Your task to perform on an android device: move an email to a new category in the gmail app Image 0: 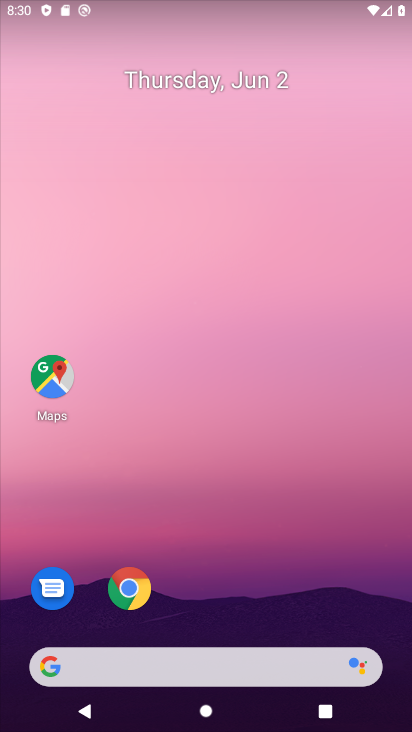
Step 0: drag from (286, 626) to (290, 210)
Your task to perform on an android device: move an email to a new category in the gmail app Image 1: 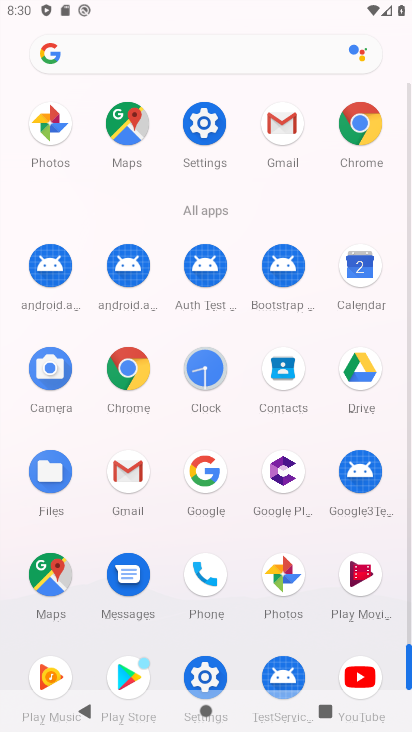
Step 1: click (138, 464)
Your task to perform on an android device: move an email to a new category in the gmail app Image 2: 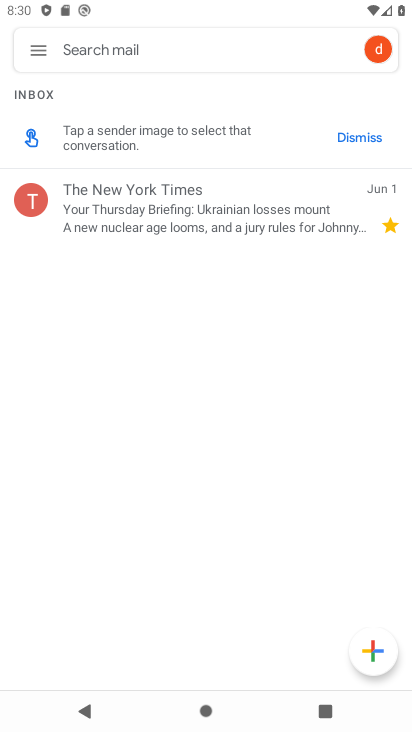
Step 2: click (188, 209)
Your task to perform on an android device: move an email to a new category in the gmail app Image 3: 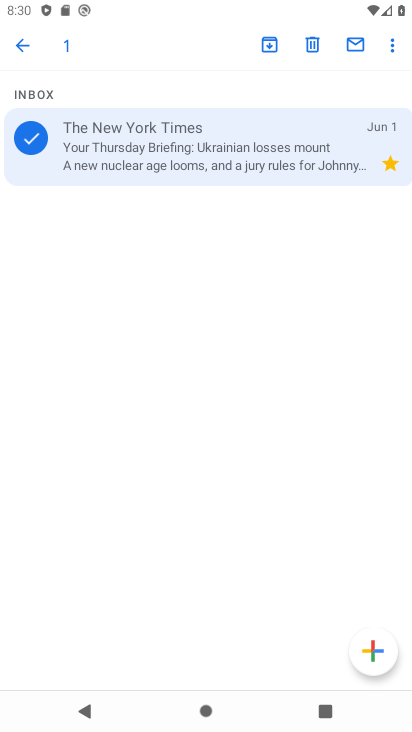
Step 3: click (389, 48)
Your task to perform on an android device: move an email to a new category in the gmail app Image 4: 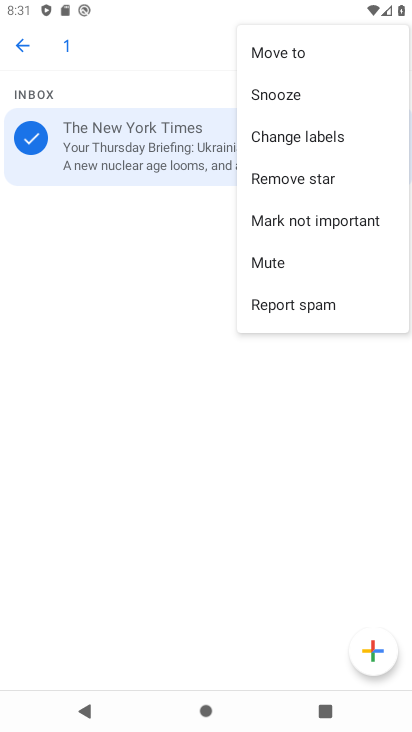
Step 4: click (278, 52)
Your task to perform on an android device: move an email to a new category in the gmail app Image 5: 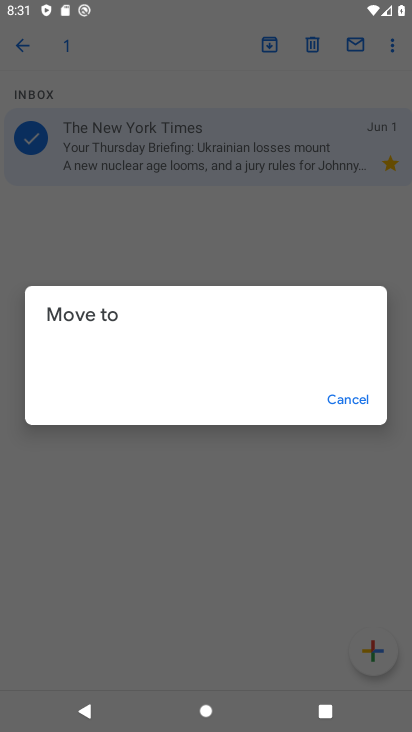
Step 5: click (325, 395)
Your task to perform on an android device: move an email to a new category in the gmail app Image 6: 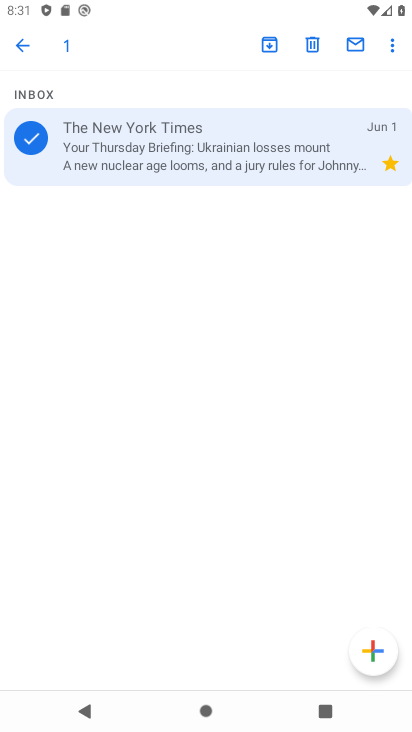
Step 6: click (25, 48)
Your task to perform on an android device: move an email to a new category in the gmail app Image 7: 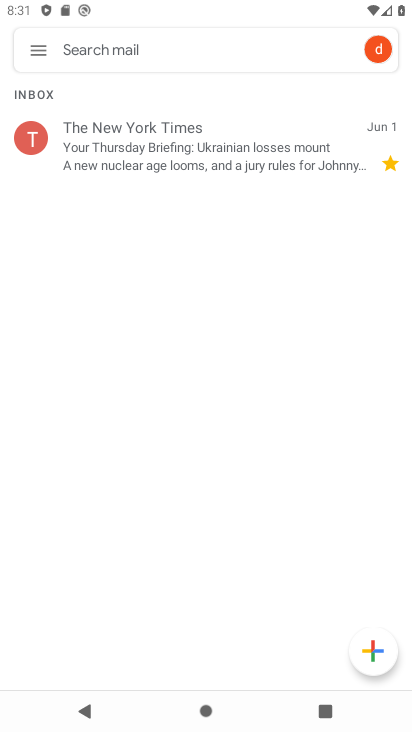
Step 7: click (20, 49)
Your task to perform on an android device: move an email to a new category in the gmail app Image 8: 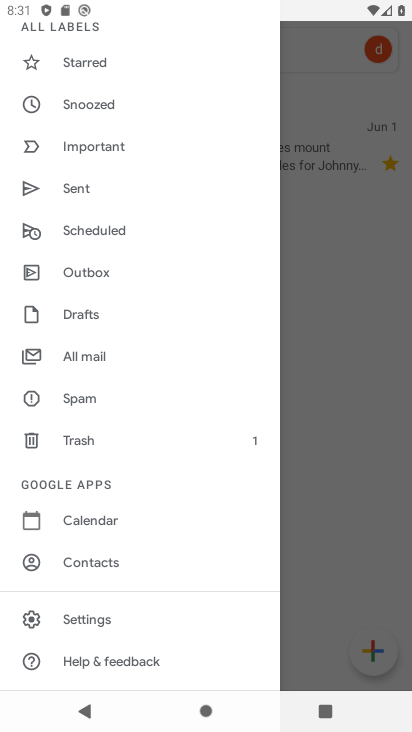
Step 8: click (119, 430)
Your task to perform on an android device: move an email to a new category in the gmail app Image 9: 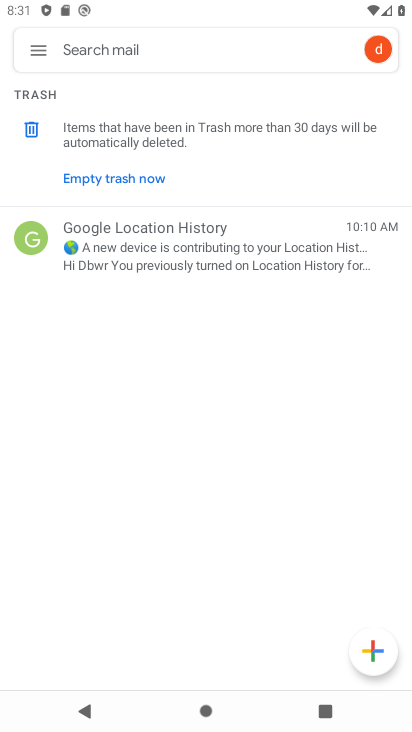
Step 9: click (204, 233)
Your task to perform on an android device: move an email to a new category in the gmail app Image 10: 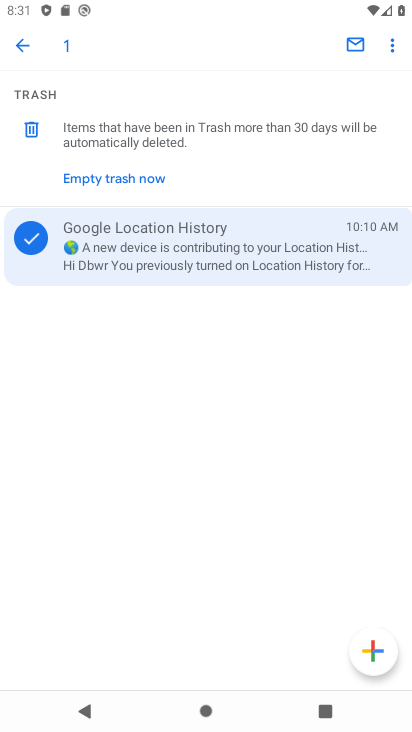
Step 10: click (389, 39)
Your task to perform on an android device: move an email to a new category in the gmail app Image 11: 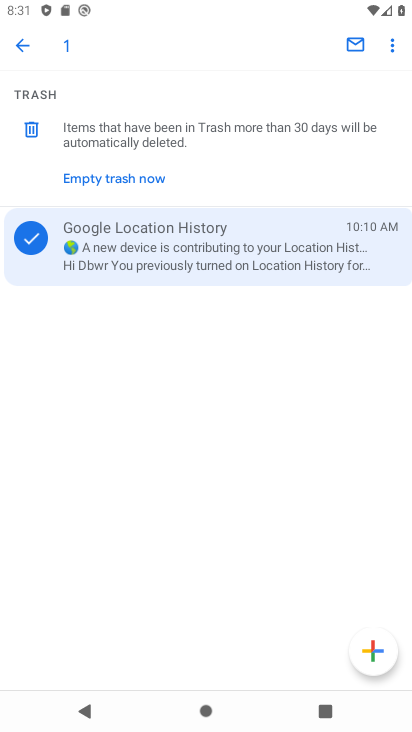
Step 11: click (392, 49)
Your task to perform on an android device: move an email to a new category in the gmail app Image 12: 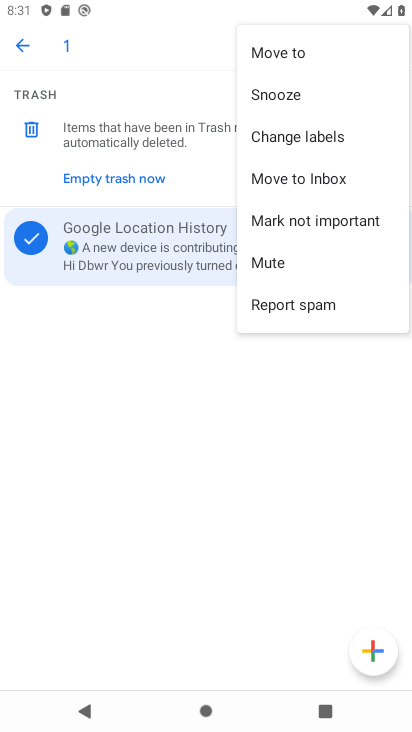
Step 12: click (307, 54)
Your task to perform on an android device: move an email to a new category in the gmail app Image 13: 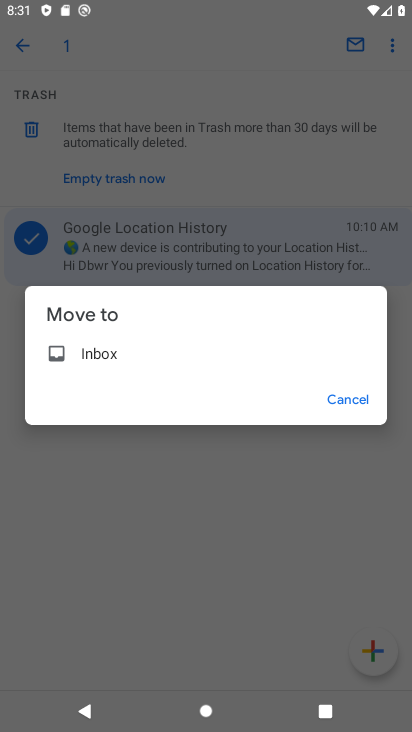
Step 13: click (188, 345)
Your task to perform on an android device: move an email to a new category in the gmail app Image 14: 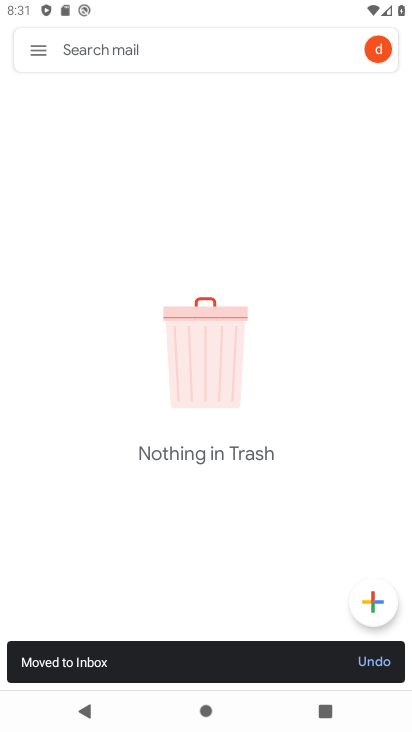
Step 14: task complete